Your task to perform on an android device: open chrome privacy settings Image 0: 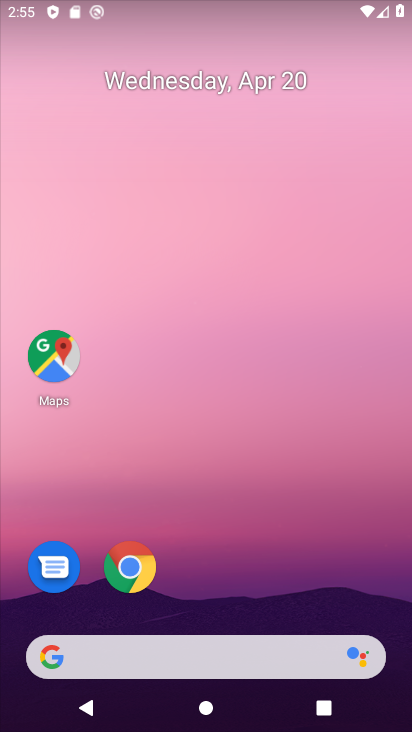
Step 0: click (154, 578)
Your task to perform on an android device: open chrome privacy settings Image 1: 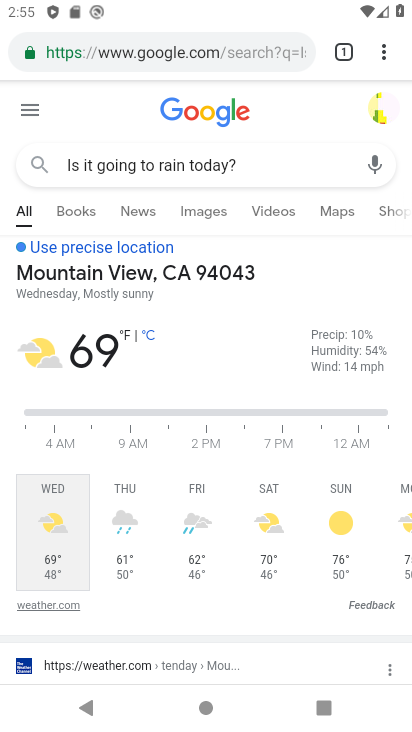
Step 1: click (389, 66)
Your task to perform on an android device: open chrome privacy settings Image 2: 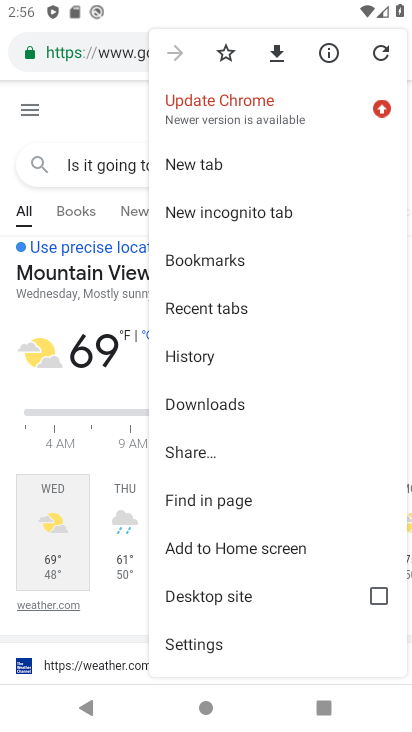
Step 2: click (249, 645)
Your task to perform on an android device: open chrome privacy settings Image 3: 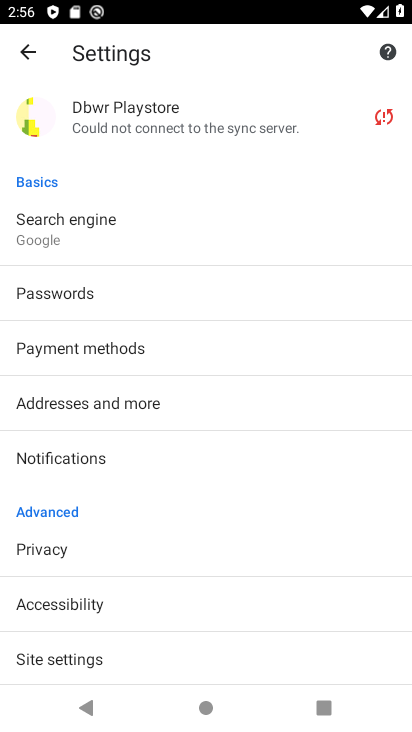
Step 3: click (150, 556)
Your task to perform on an android device: open chrome privacy settings Image 4: 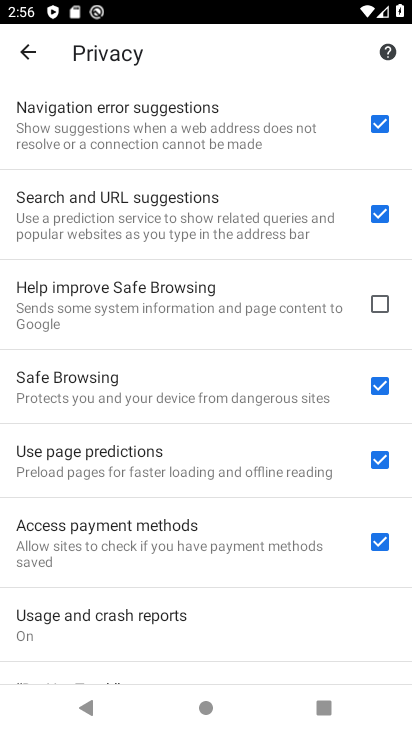
Step 4: task complete